Your task to perform on an android device: change keyboard looks Image 0: 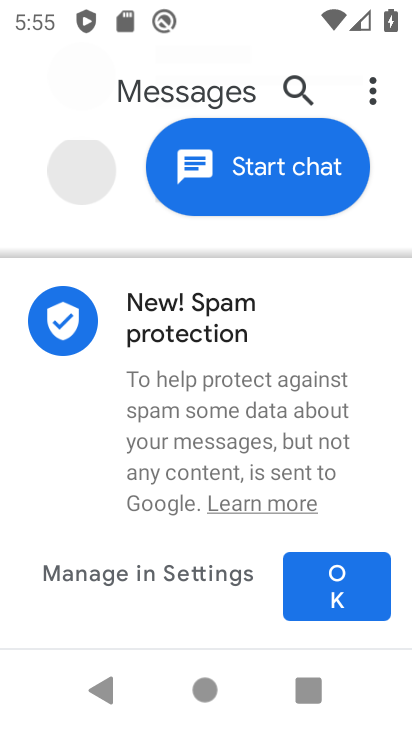
Step 0: press home button
Your task to perform on an android device: change keyboard looks Image 1: 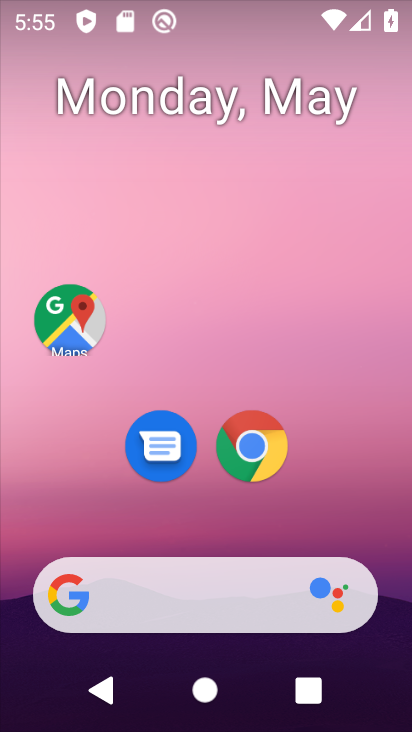
Step 1: drag from (343, 486) to (219, 60)
Your task to perform on an android device: change keyboard looks Image 2: 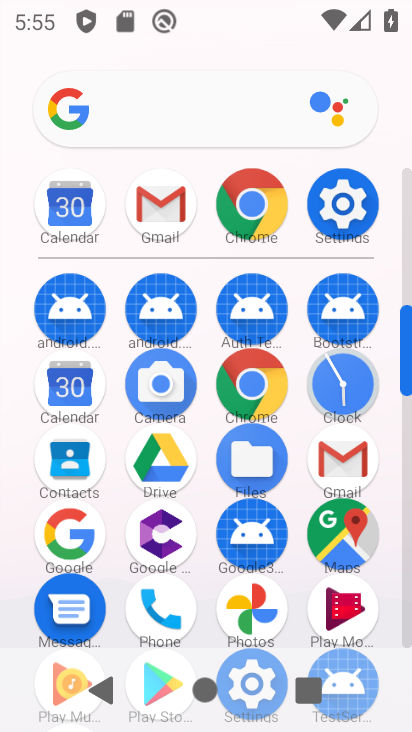
Step 2: click (330, 204)
Your task to perform on an android device: change keyboard looks Image 3: 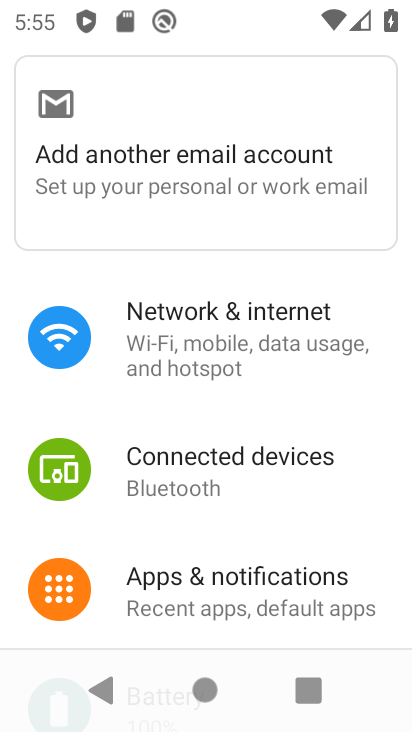
Step 3: drag from (317, 509) to (266, 270)
Your task to perform on an android device: change keyboard looks Image 4: 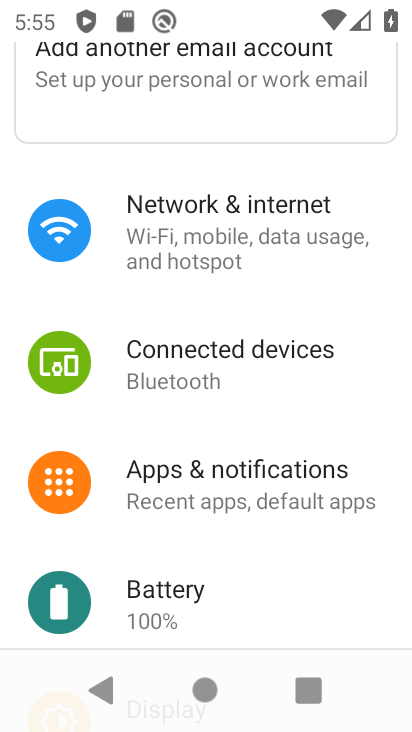
Step 4: drag from (266, 406) to (226, 172)
Your task to perform on an android device: change keyboard looks Image 5: 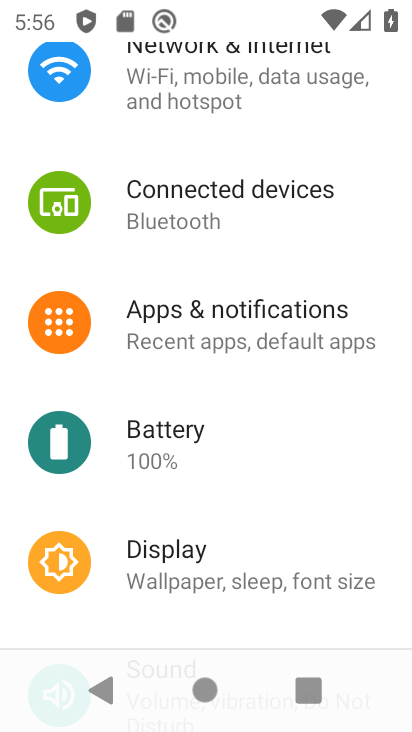
Step 5: drag from (261, 442) to (204, 146)
Your task to perform on an android device: change keyboard looks Image 6: 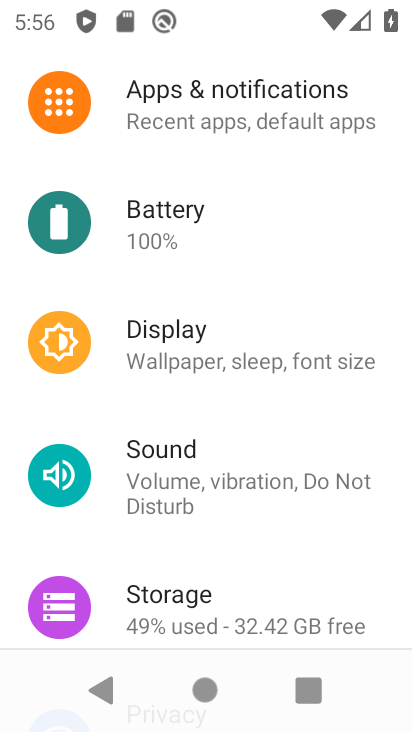
Step 6: drag from (226, 526) to (265, 195)
Your task to perform on an android device: change keyboard looks Image 7: 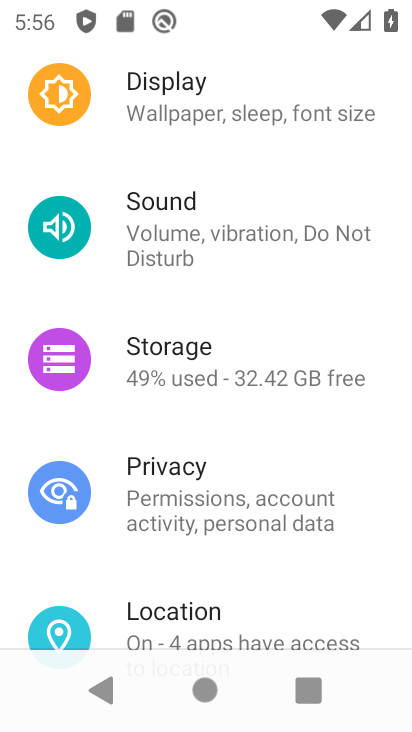
Step 7: drag from (262, 439) to (222, 135)
Your task to perform on an android device: change keyboard looks Image 8: 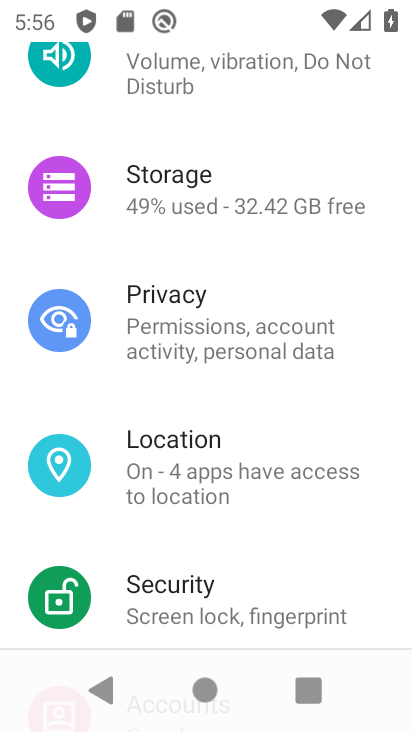
Step 8: drag from (223, 521) to (223, 58)
Your task to perform on an android device: change keyboard looks Image 9: 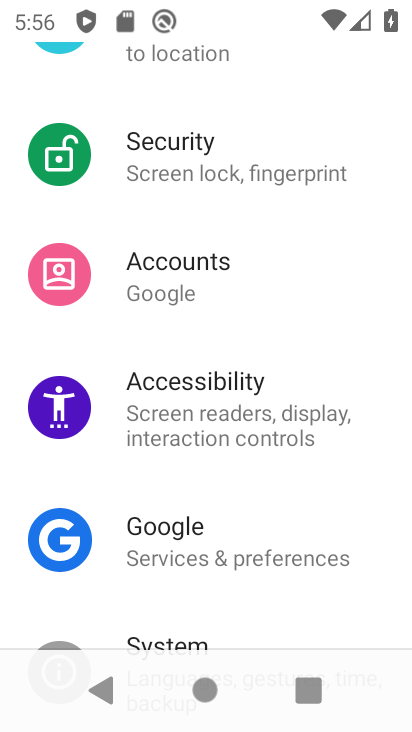
Step 9: drag from (201, 503) to (203, 337)
Your task to perform on an android device: change keyboard looks Image 10: 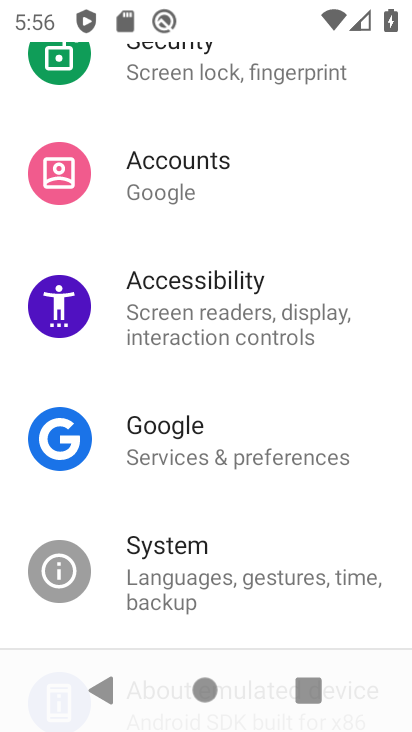
Step 10: drag from (258, 528) to (258, 170)
Your task to perform on an android device: change keyboard looks Image 11: 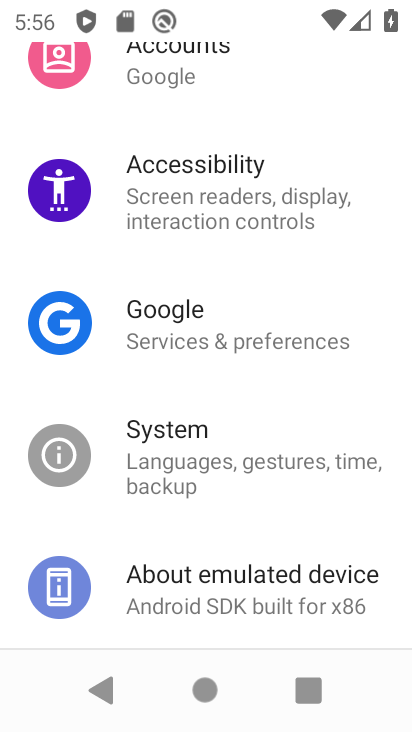
Step 11: click (179, 440)
Your task to perform on an android device: change keyboard looks Image 12: 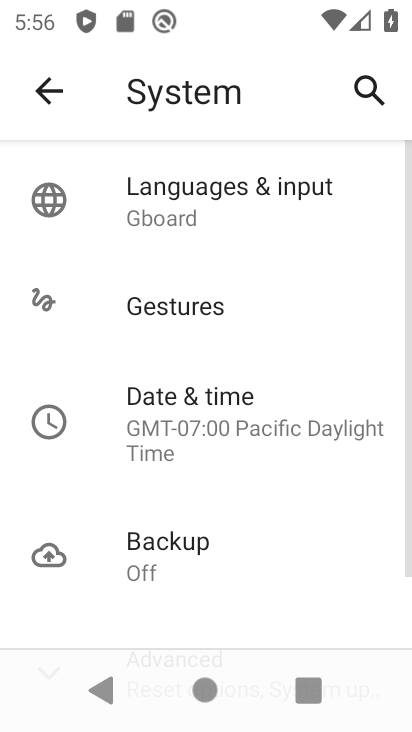
Step 12: click (196, 189)
Your task to perform on an android device: change keyboard looks Image 13: 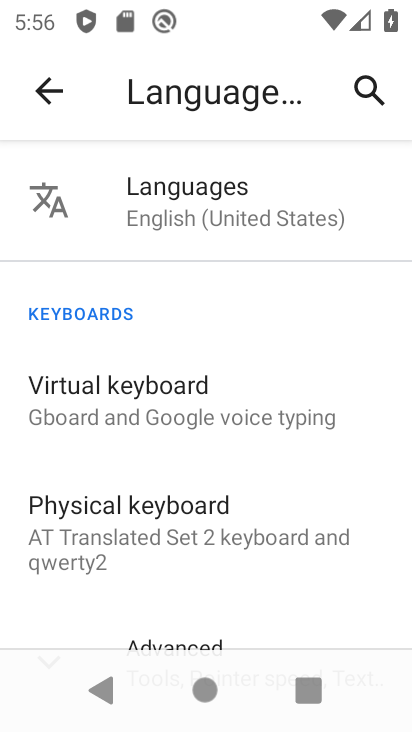
Step 13: click (120, 401)
Your task to perform on an android device: change keyboard looks Image 14: 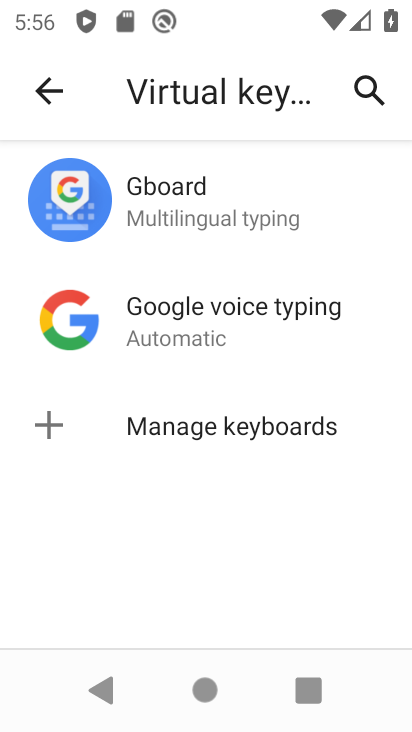
Step 14: click (153, 203)
Your task to perform on an android device: change keyboard looks Image 15: 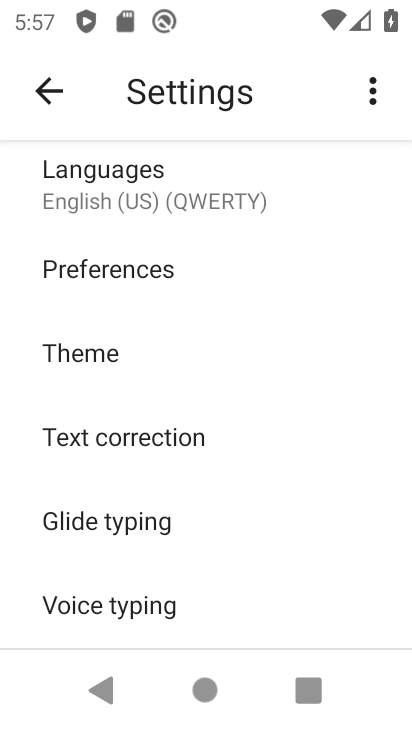
Step 15: click (90, 341)
Your task to perform on an android device: change keyboard looks Image 16: 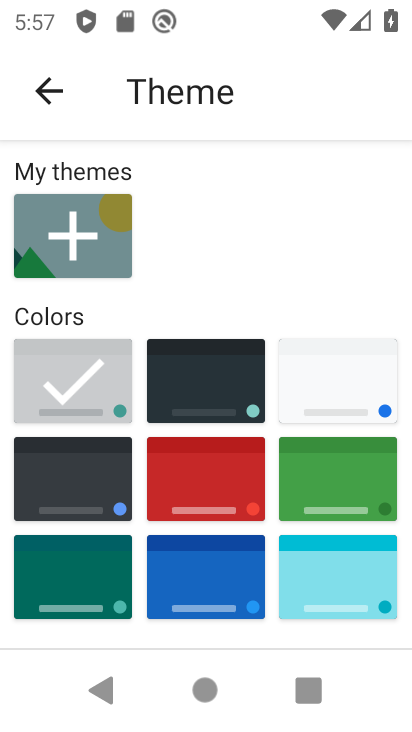
Step 16: click (217, 484)
Your task to perform on an android device: change keyboard looks Image 17: 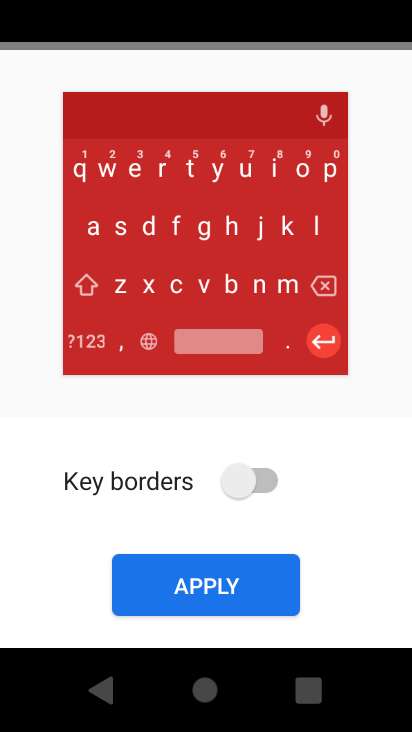
Step 17: click (197, 567)
Your task to perform on an android device: change keyboard looks Image 18: 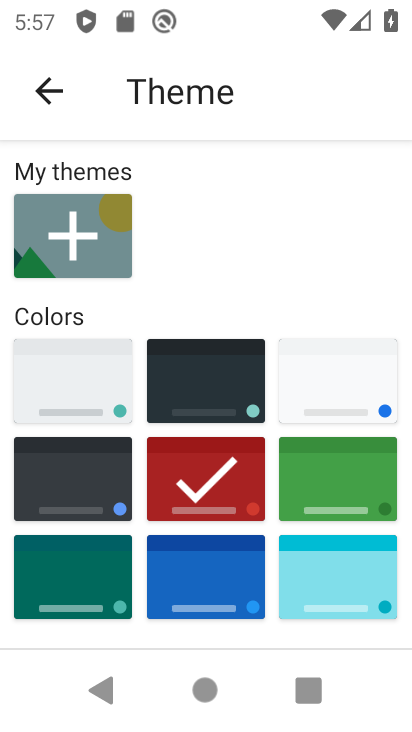
Step 18: task complete